Your task to perform on an android device: Find coffee shops on Maps Image 0: 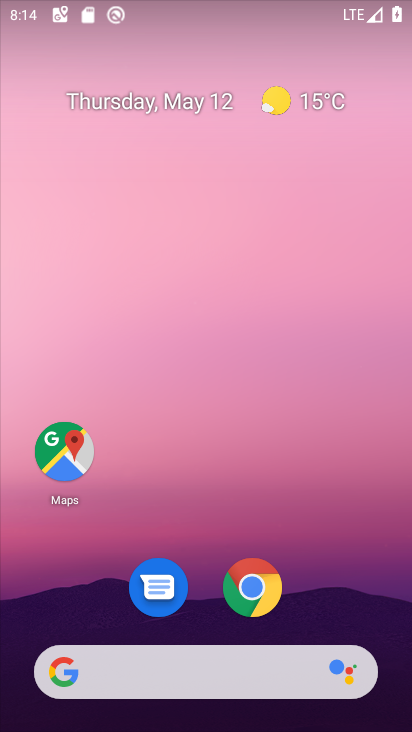
Step 0: drag from (335, 601) to (238, 156)
Your task to perform on an android device: Find coffee shops on Maps Image 1: 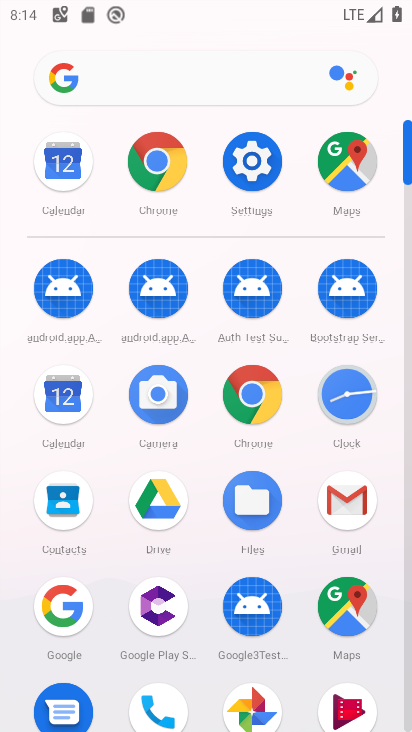
Step 1: click (331, 166)
Your task to perform on an android device: Find coffee shops on Maps Image 2: 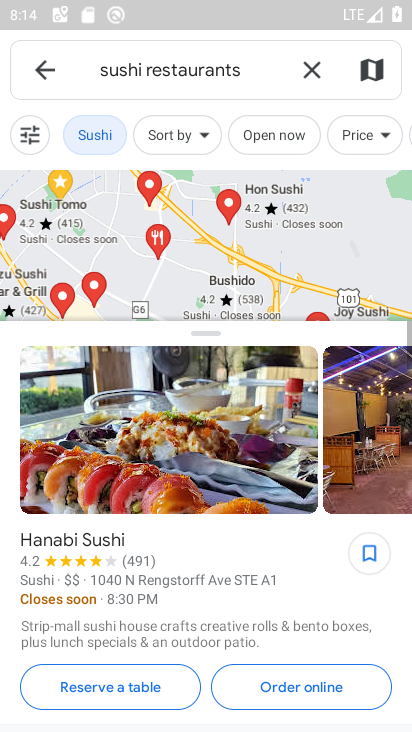
Step 2: click (297, 76)
Your task to perform on an android device: Find coffee shops on Maps Image 3: 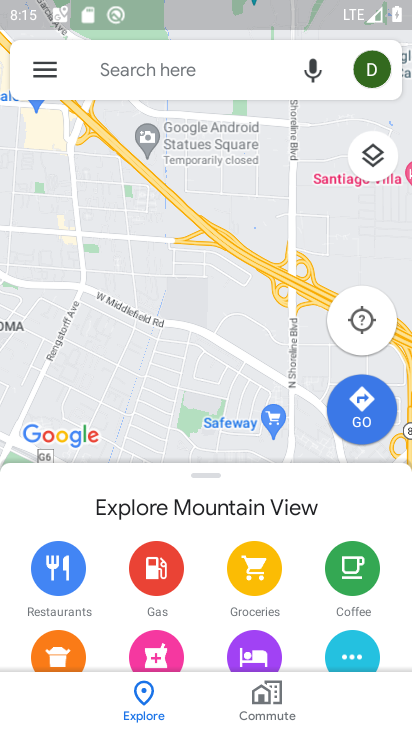
Step 3: click (244, 75)
Your task to perform on an android device: Find coffee shops on Maps Image 4: 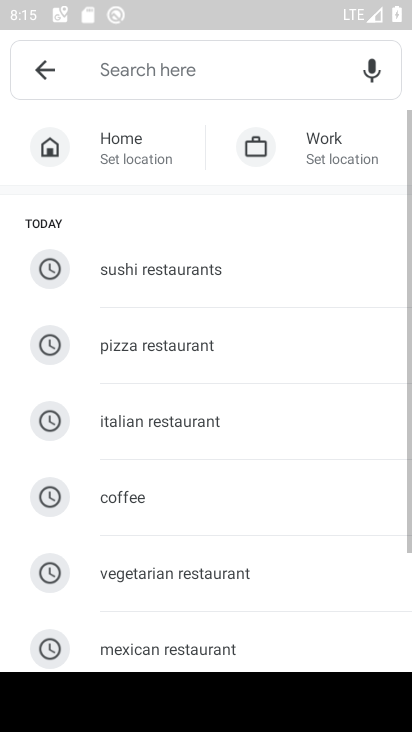
Step 4: click (190, 503)
Your task to perform on an android device: Find coffee shops on Maps Image 5: 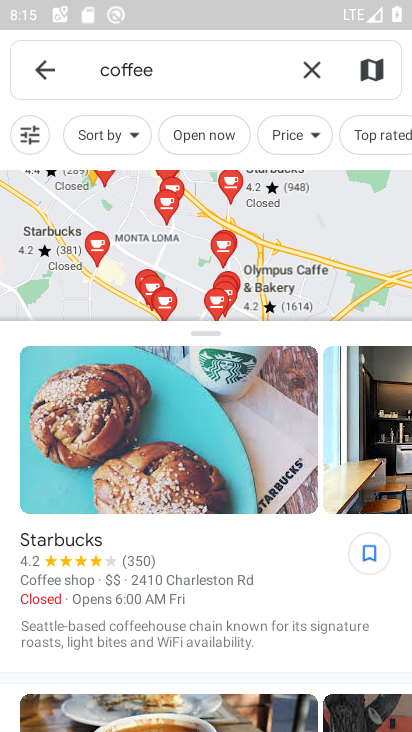
Step 5: task complete